Your task to perform on an android device: all mails in gmail Image 0: 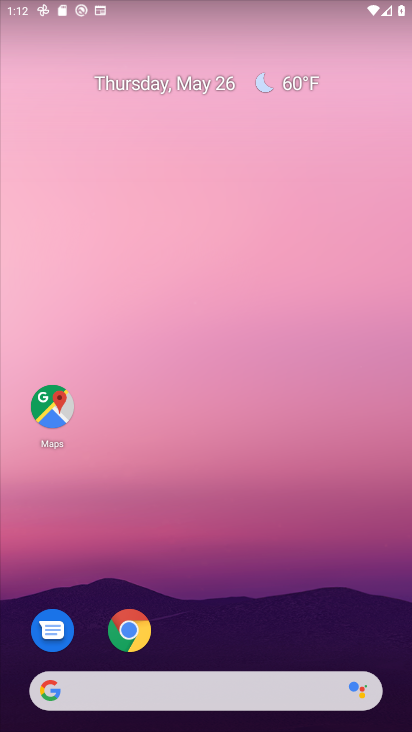
Step 0: drag from (346, 342) to (355, 9)
Your task to perform on an android device: all mails in gmail Image 1: 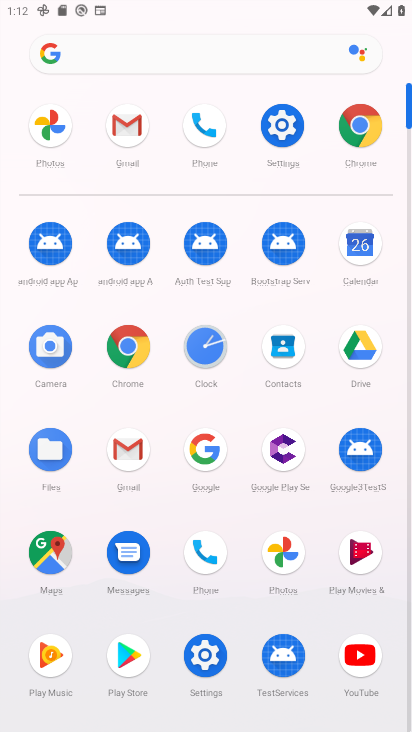
Step 1: click (138, 140)
Your task to perform on an android device: all mails in gmail Image 2: 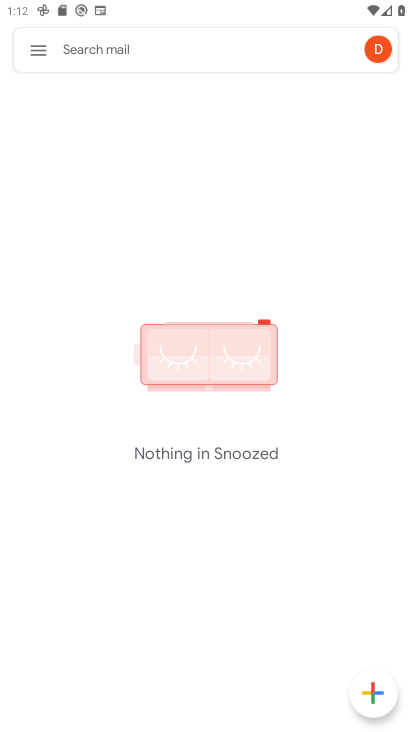
Step 2: click (47, 55)
Your task to perform on an android device: all mails in gmail Image 3: 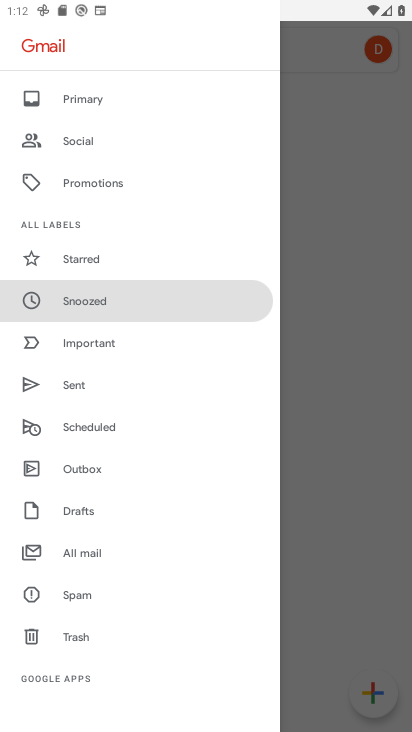
Step 3: click (96, 555)
Your task to perform on an android device: all mails in gmail Image 4: 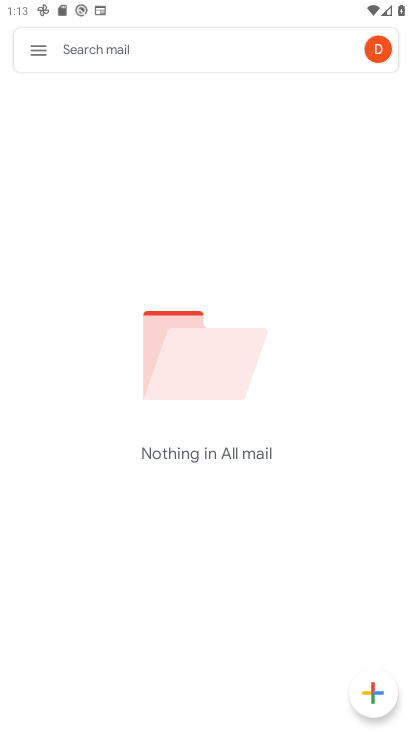
Step 4: task complete